Your task to perform on an android device: change the clock display to show seconds Image 0: 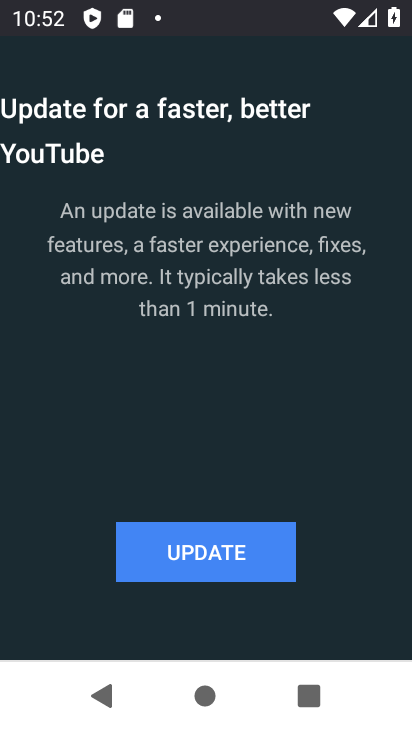
Step 0: press back button
Your task to perform on an android device: change the clock display to show seconds Image 1: 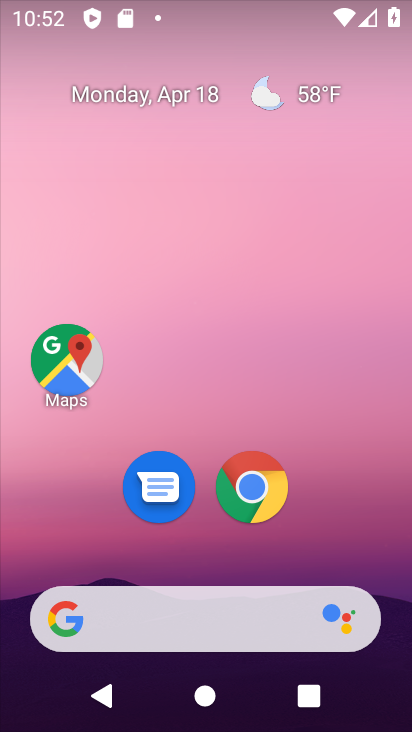
Step 1: drag from (341, 495) to (302, 176)
Your task to perform on an android device: change the clock display to show seconds Image 2: 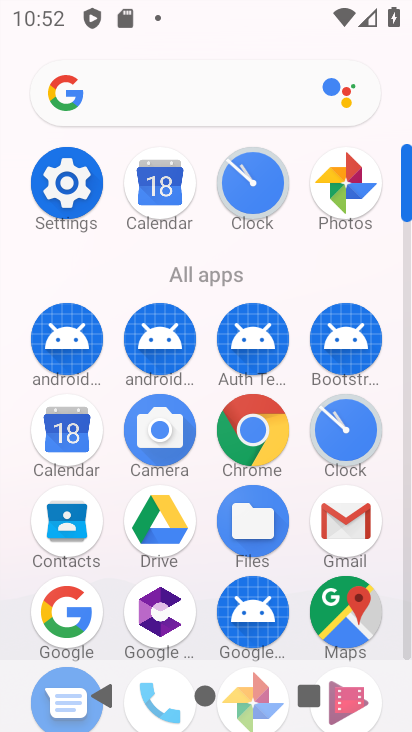
Step 2: click (264, 214)
Your task to perform on an android device: change the clock display to show seconds Image 3: 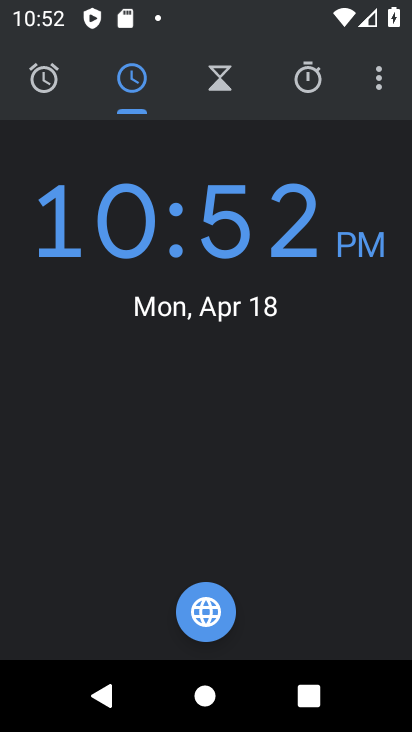
Step 3: click (376, 84)
Your task to perform on an android device: change the clock display to show seconds Image 4: 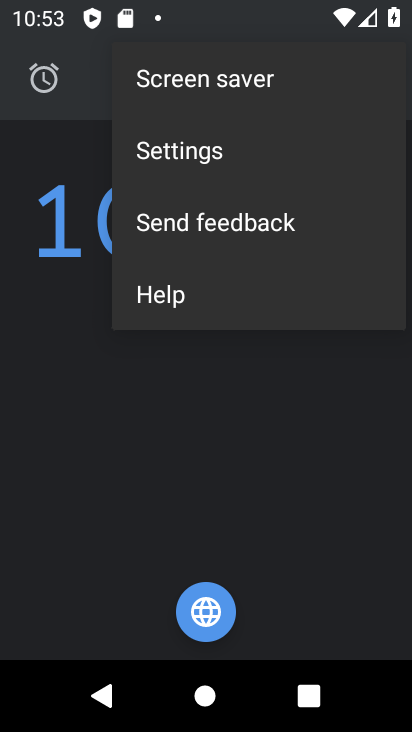
Step 4: click (252, 143)
Your task to perform on an android device: change the clock display to show seconds Image 5: 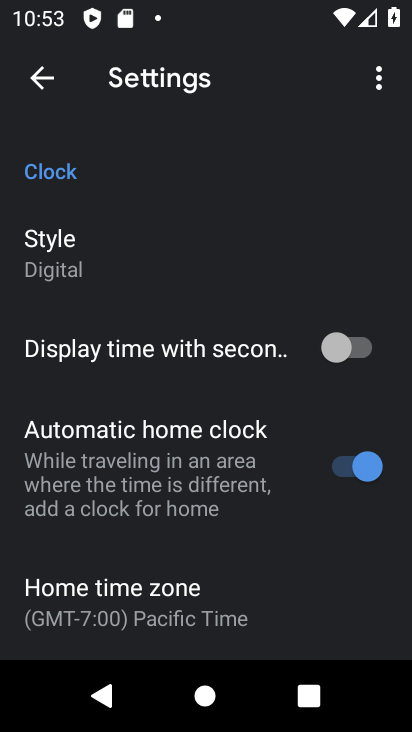
Step 5: click (331, 341)
Your task to perform on an android device: change the clock display to show seconds Image 6: 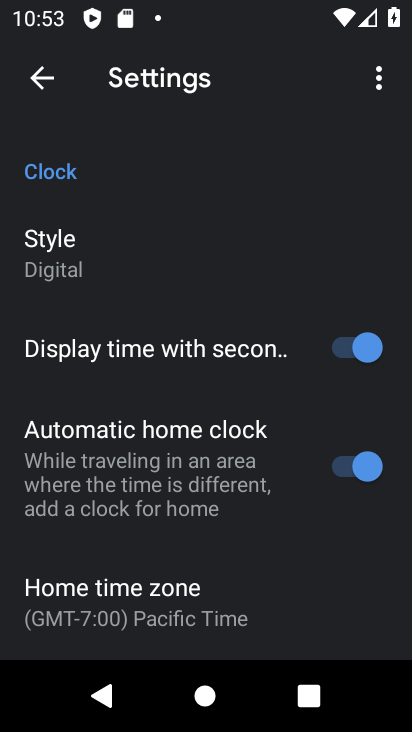
Step 6: task complete